Your task to perform on an android device: turn off smart reply in the gmail app Image 0: 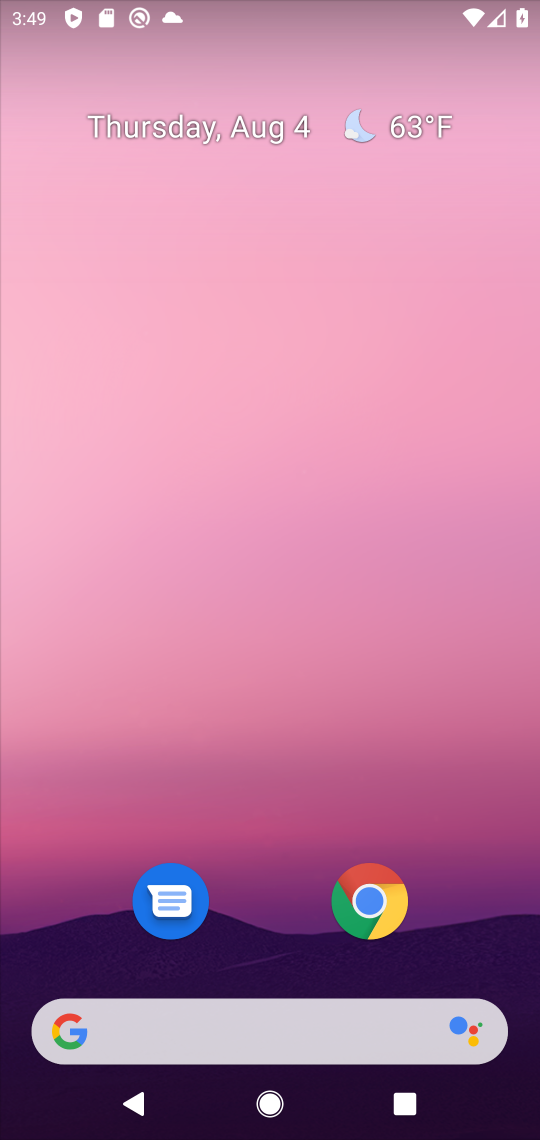
Step 0: drag from (258, 921) to (262, 276)
Your task to perform on an android device: turn off smart reply in the gmail app Image 1: 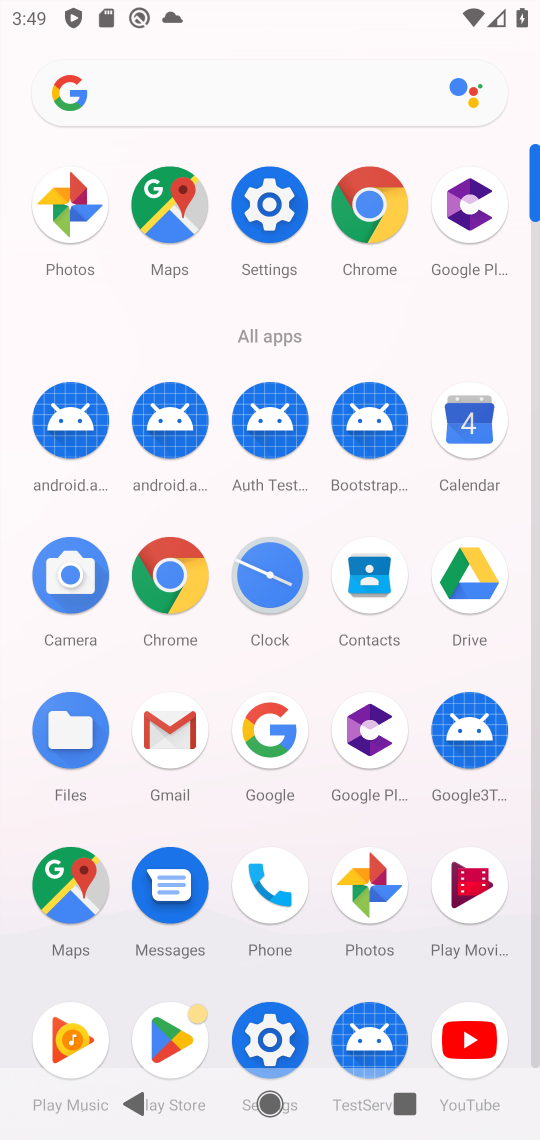
Step 1: click (168, 726)
Your task to perform on an android device: turn off smart reply in the gmail app Image 2: 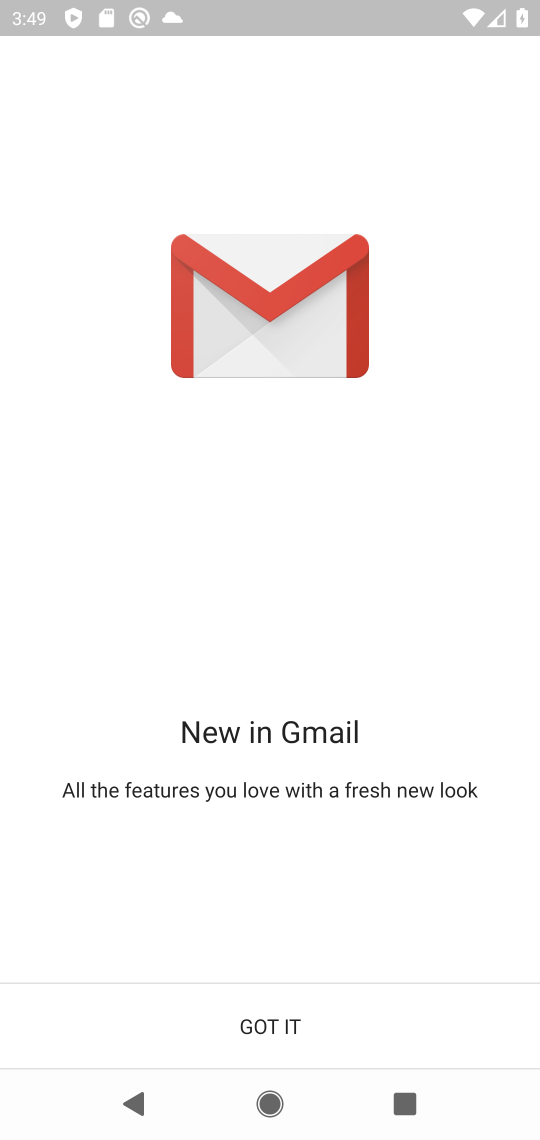
Step 2: click (280, 1032)
Your task to perform on an android device: turn off smart reply in the gmail app Image 3: 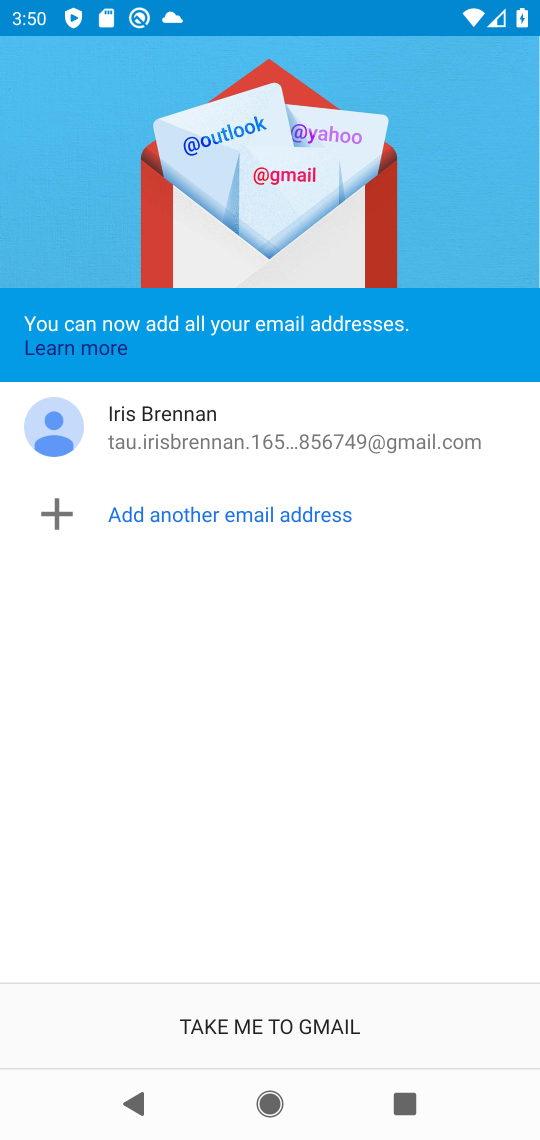
Step 3: click (280, 1032)
Your task to perform on an android device: turn off smart reply in the gmail app Image 4: 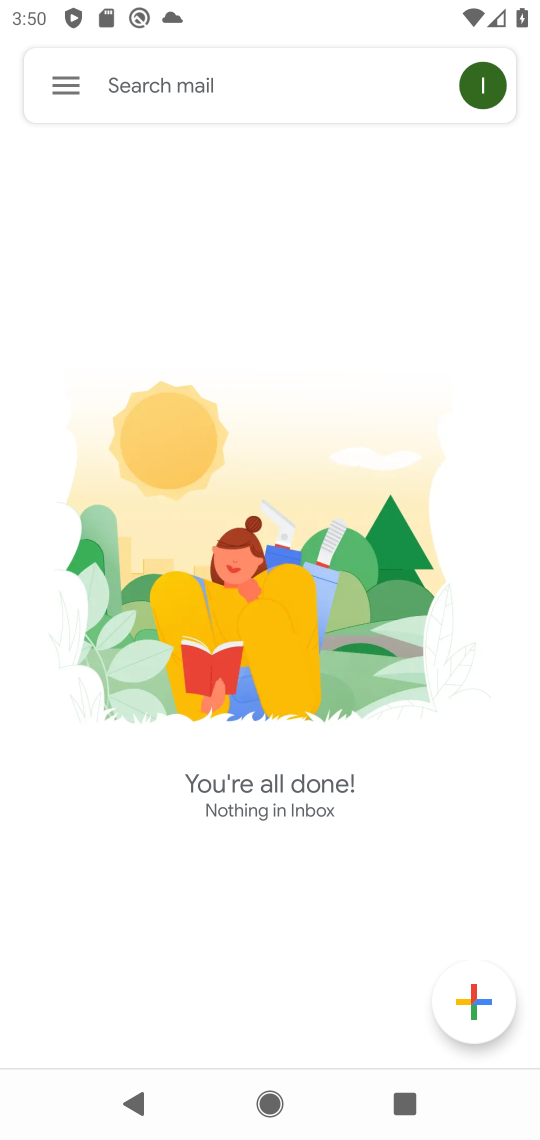
Step 4: click (51, 93)
Your task to perform on an android device: turn off smart reply in the gmail app Image 5: 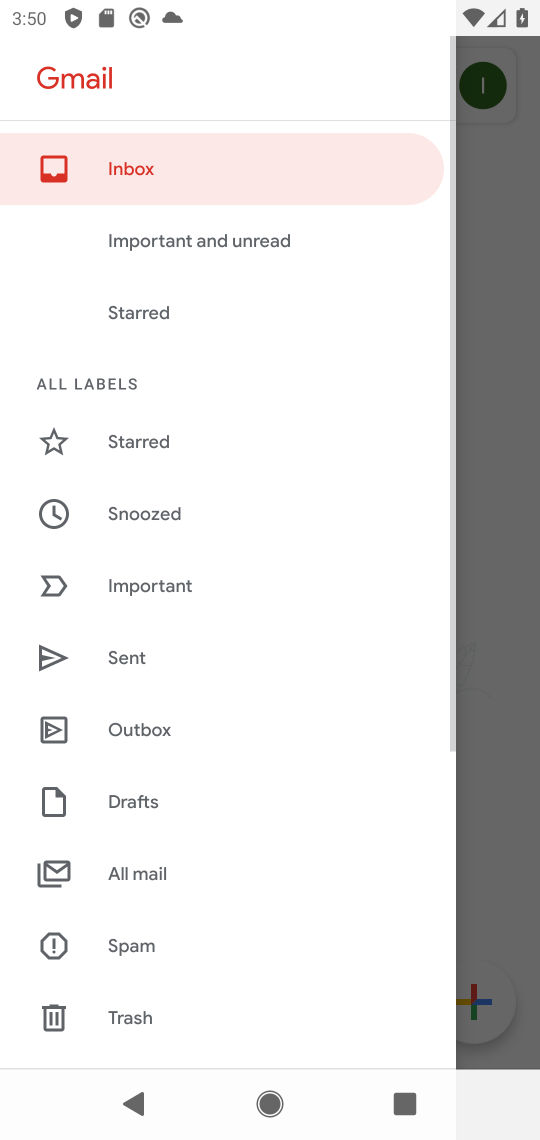
Step 5: drag from (248, 912) to (255, 337)
Your task to perform on an android device: turn off smart reply in the gmail app Image 6: 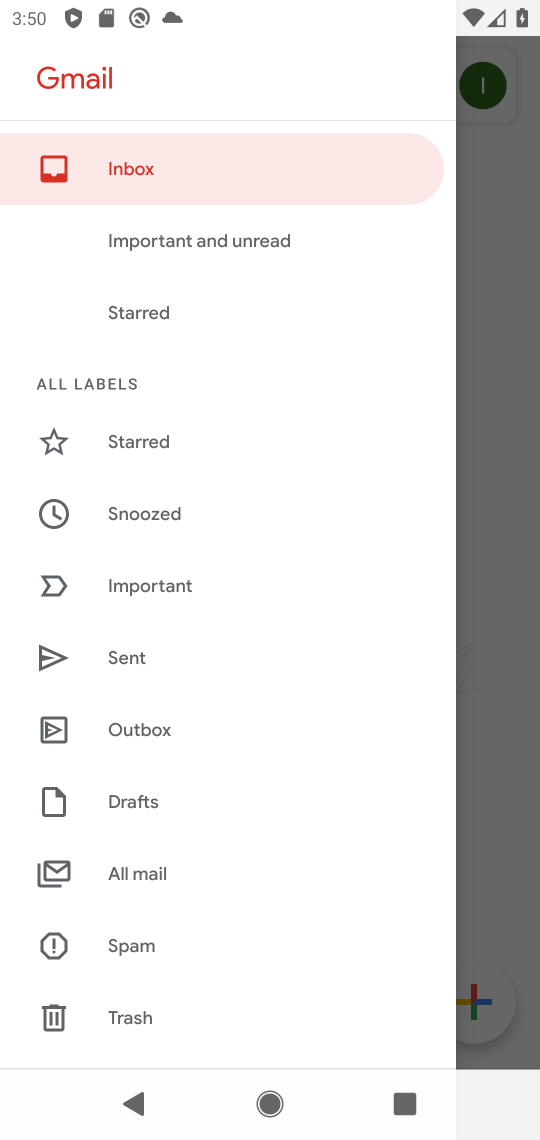
Step 6: drag from (293, 990) to (229, 161)
Your task to perform on an android device: turn off smart reply in the gmail app Image 7: 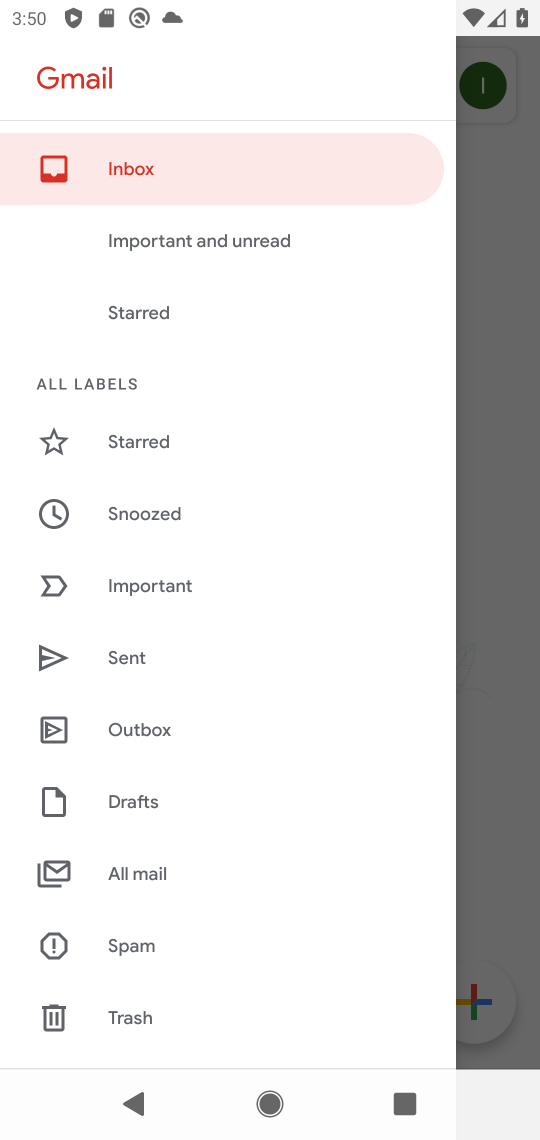
Step 7: drag from (143, 1010) to (184, 192)
Your task to perform on an android device: turn off smart reply in the gmail app Image 8: 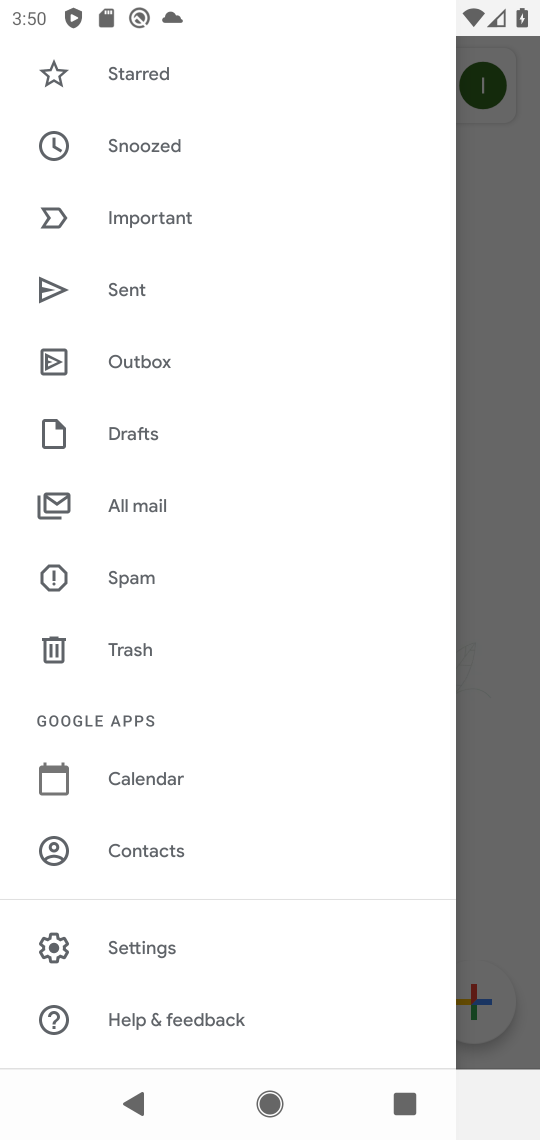
Step 8: click (134, 954)
Your task to perform on an android device: turn off smart reply in the gmail app Image 9: 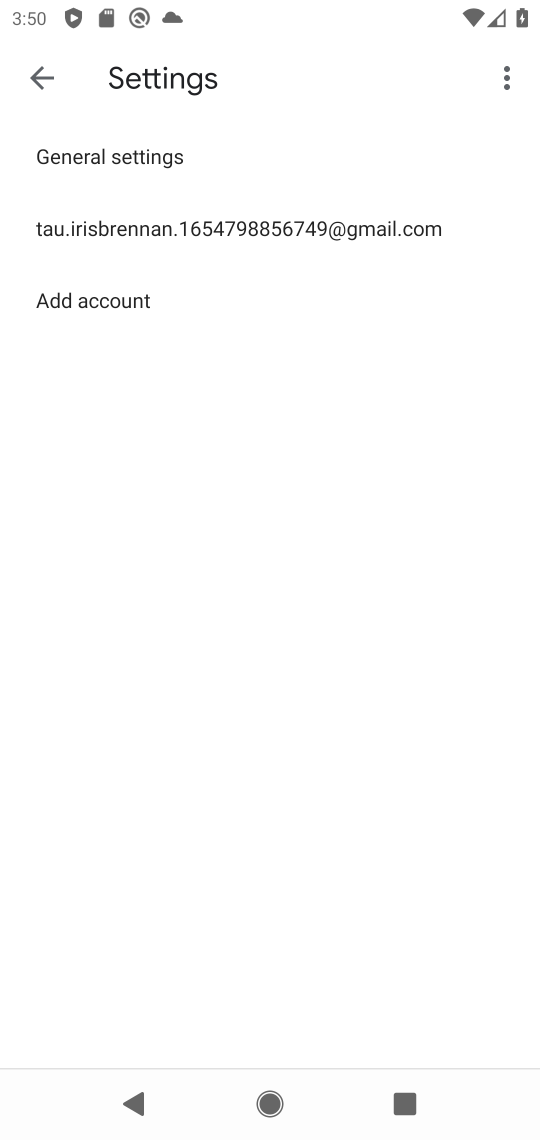
Step 9: click (309, 223)
Your task to perform on an android device: turn off smart reply in the gmail app Image 10: 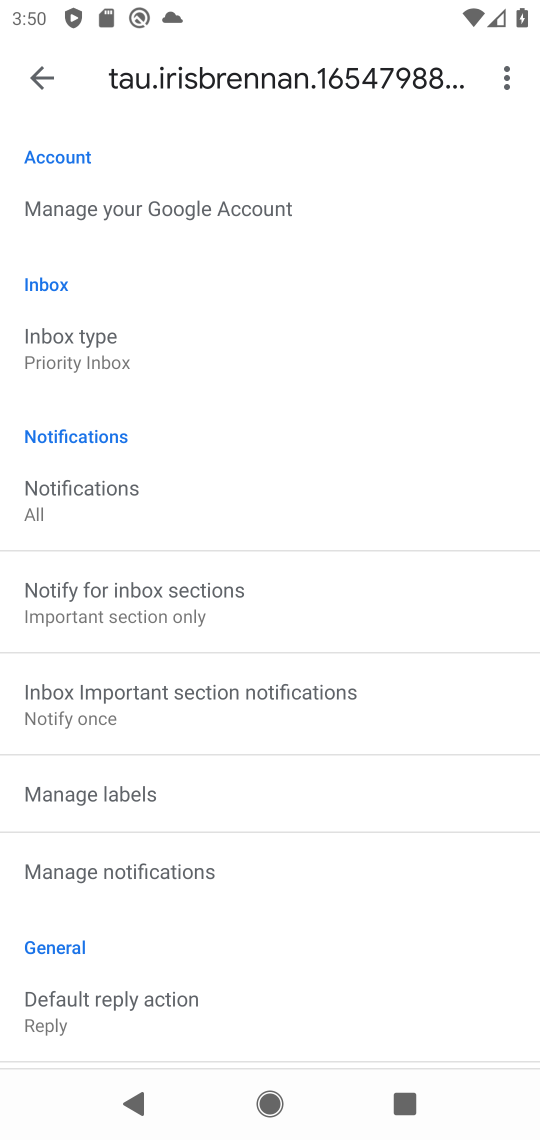
Step 10: drag from (304, 1005) to (275, 177)
Your task to perform on an android device: turn off smart reply in the gmail app Image 11: 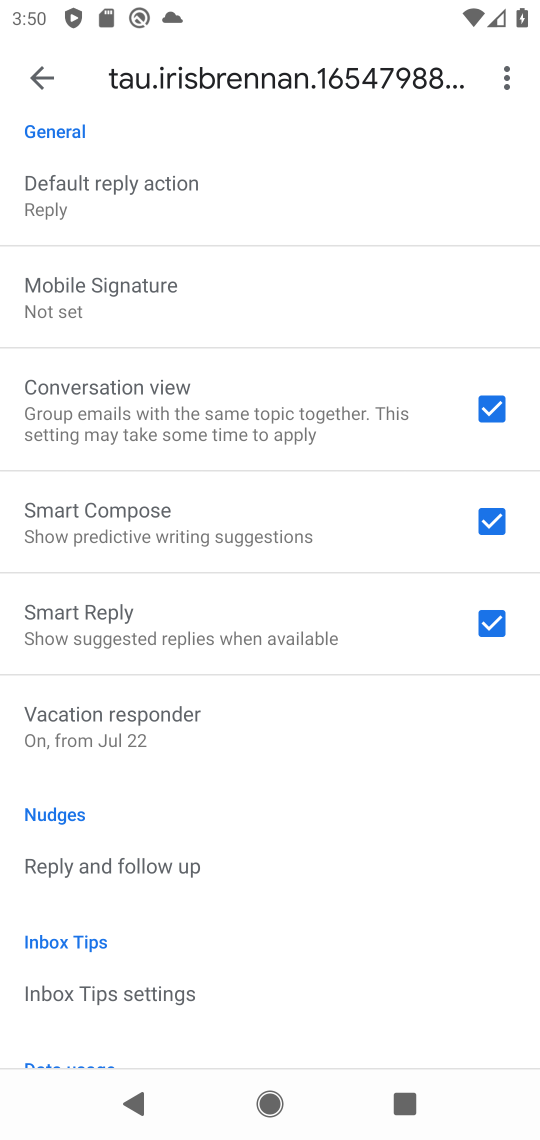
Step 11: click (425, 614)
Your task to perform on an android device: turn off smart reply in the gmail app Image 12: 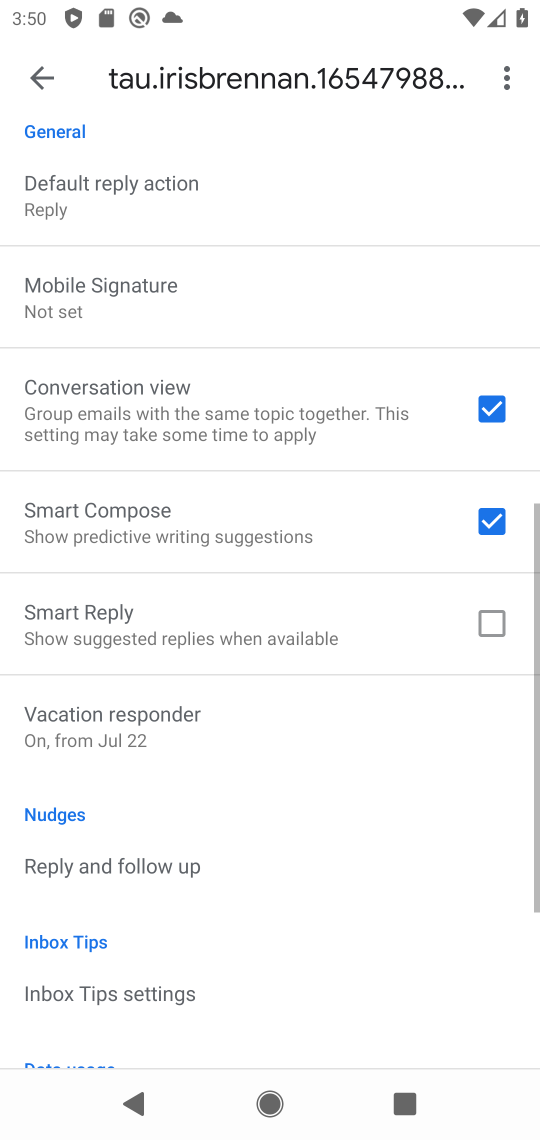
Step 12: task complete